Your task to perform on an android device: Open sound settings Image 0: 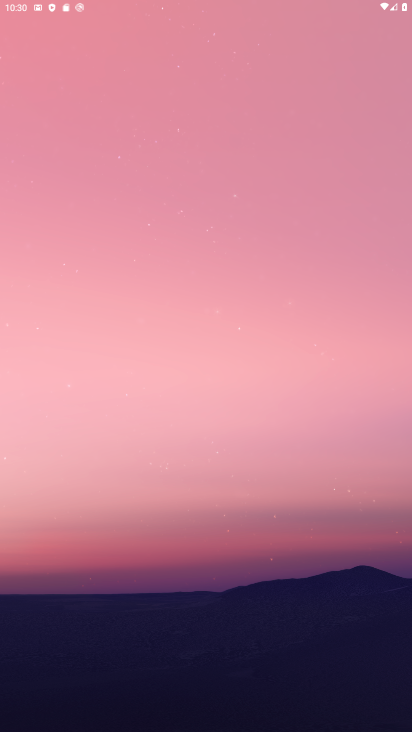
Step 0: drag from (236, 679) to (305, 312)
Your task to perform on an android device: Open sound settings Image 1: 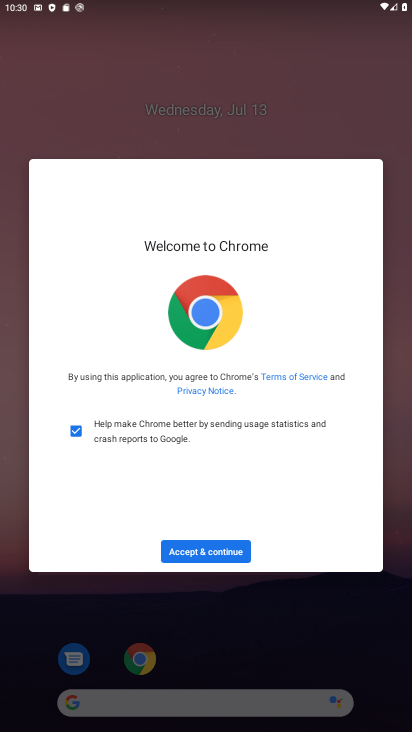
Step 1: press home button
Your task to perform on an android device: Open sound settings Image 2: 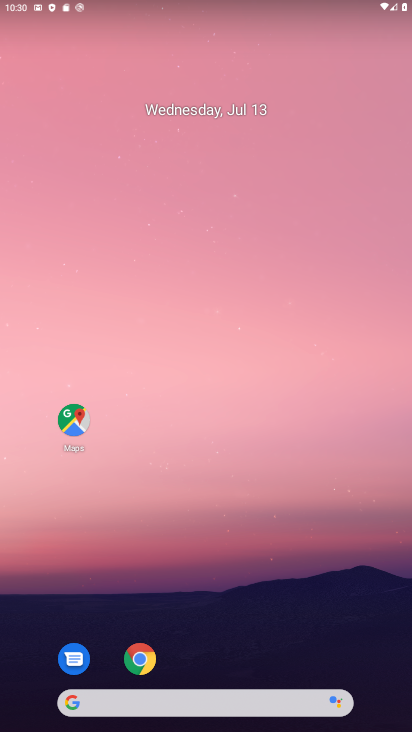
Step 2: drag from (208, 691) to (273, 55)
Your task to perform on an android device: Open sound settings Image 3: 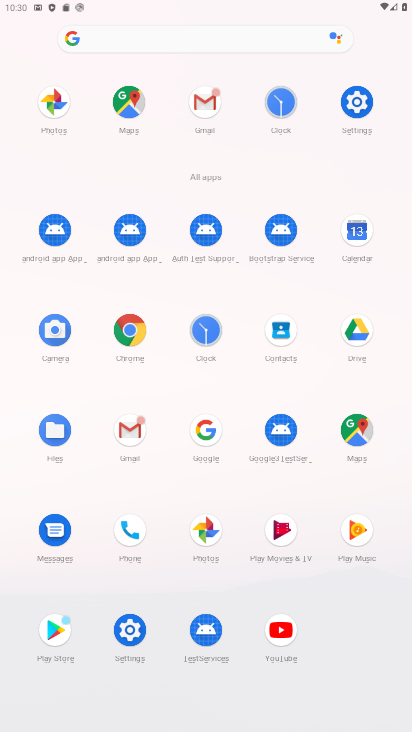
Step 3: click (125, 630)
Your task to perform on an android device: Open sound settings Image 4: 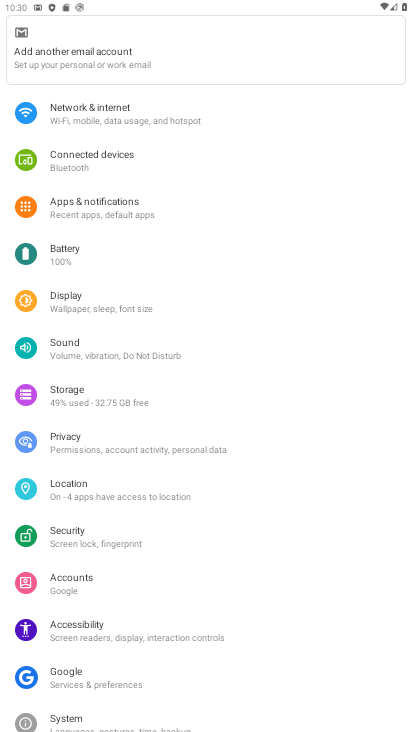
Step 4: click (92, 350)
Your task to perform on an android device: Open sound settings Image 5: 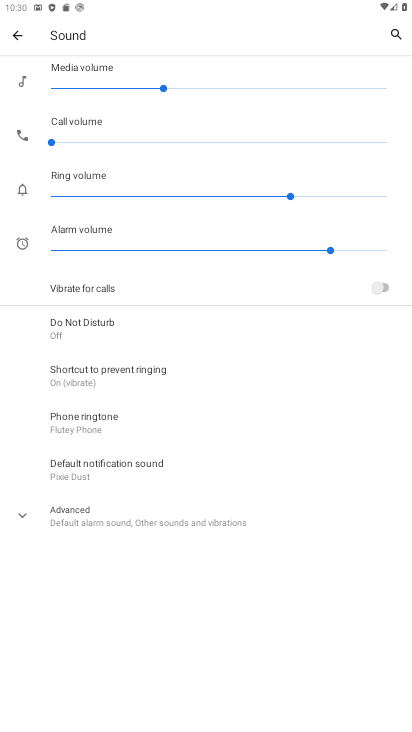
Step 5: task complete